Your task to perform on an android device: change the clock display to digital Image 0: 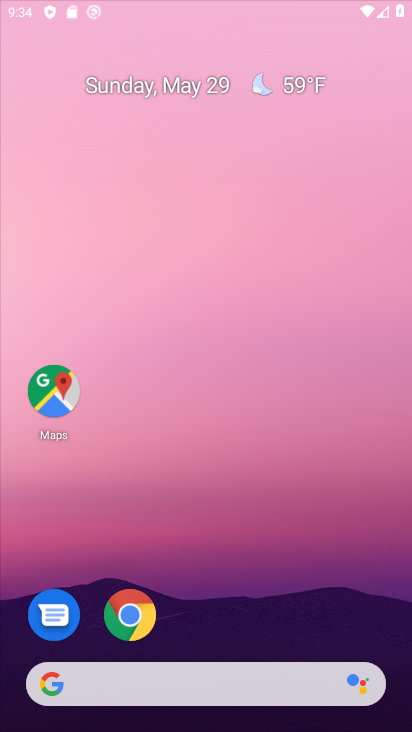
Step 0: press home button
Your task to perform on an android device: change the clock display to digital Image 1: 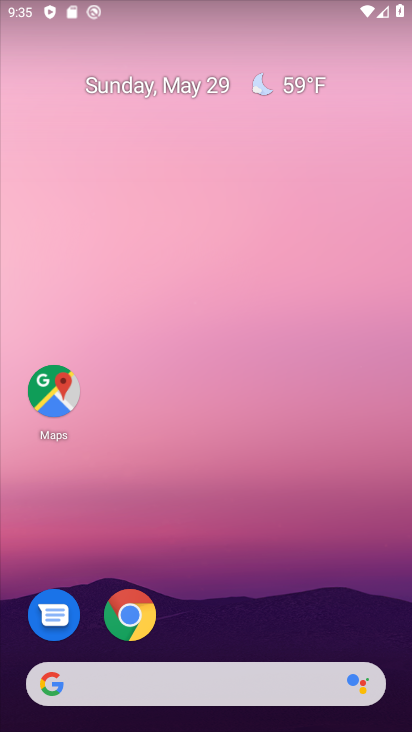
Step 1: drag from (244, 586) to (176, 14)
Your task to perform on an android device: change the clock display to digital Image 2: 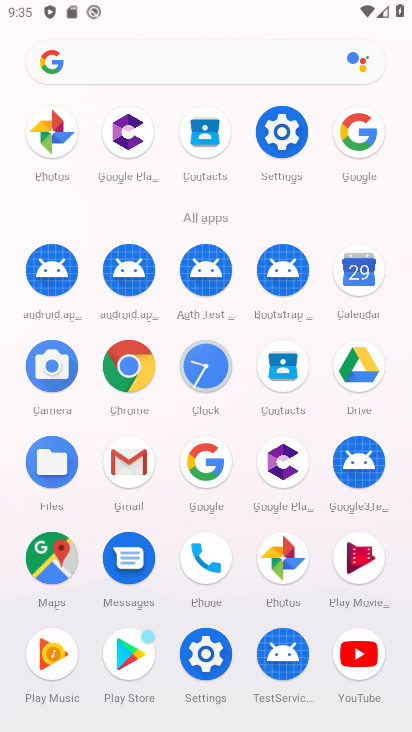
Step 2: click (207, 367)
Your task to perform on an android device: change the clock display to digital Image 3: 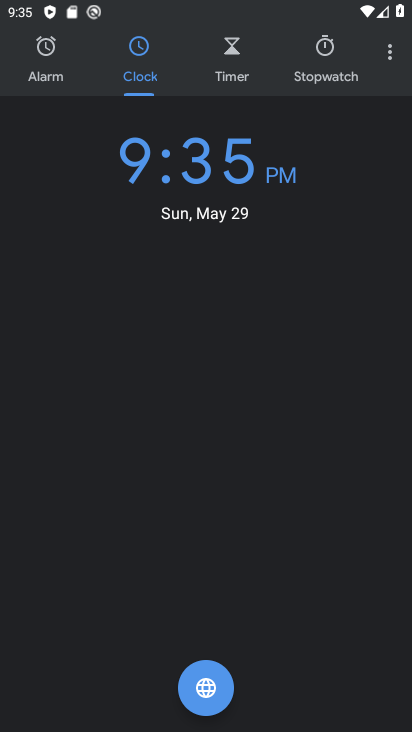
Step 3: click (384, 56)
Your task to perform on an android device: change the clock display to digital Image 4: 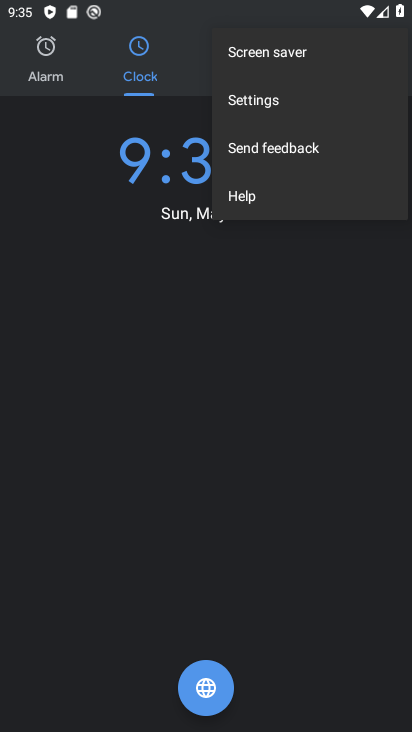
Step 4: click (278, 96)
Your task to perform on an android device: change the clock display to digital Image 5: 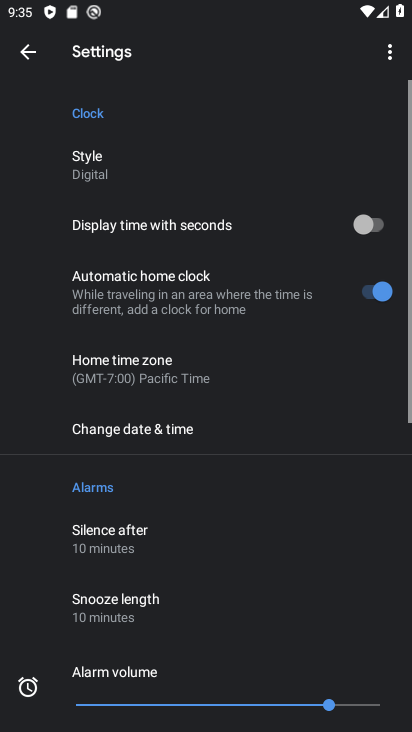
Step 5: click (106, 171)
Your task to perform on an android device: change the clock display to digital Image 6: 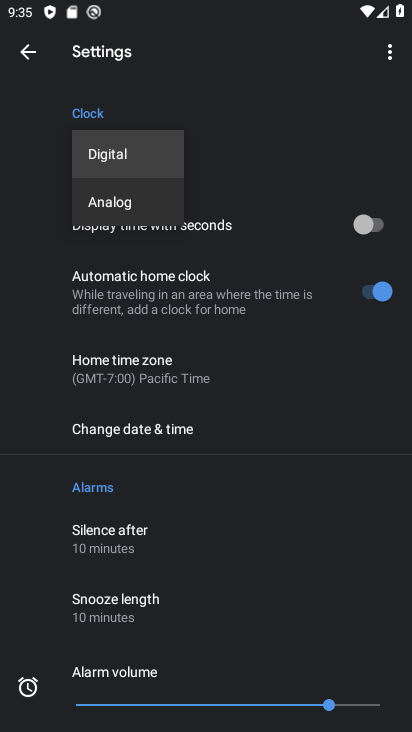
Step 6: click (131, 146)
Your task to perform on an android device: change the clock display to digital Image 7: 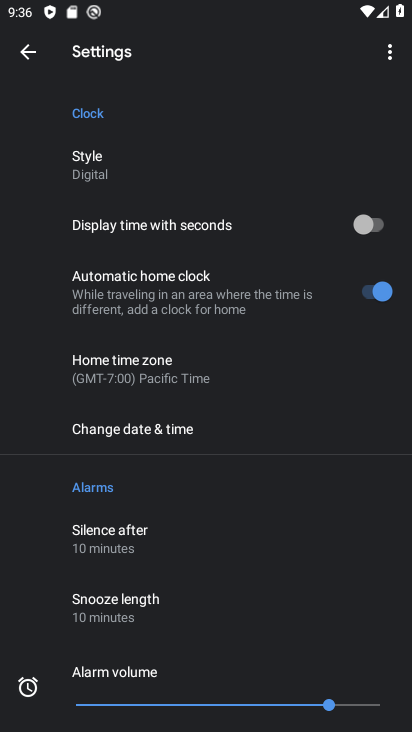
Step 7: task complete